Your task to perform on an android device: find photos in the google photos app Image 0: 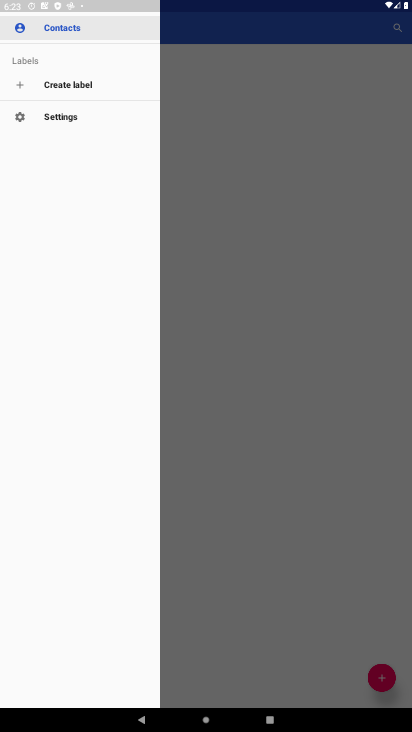
Step 0: press home button
Your task to perform on an android device: find photos in the google photos app Image 1: 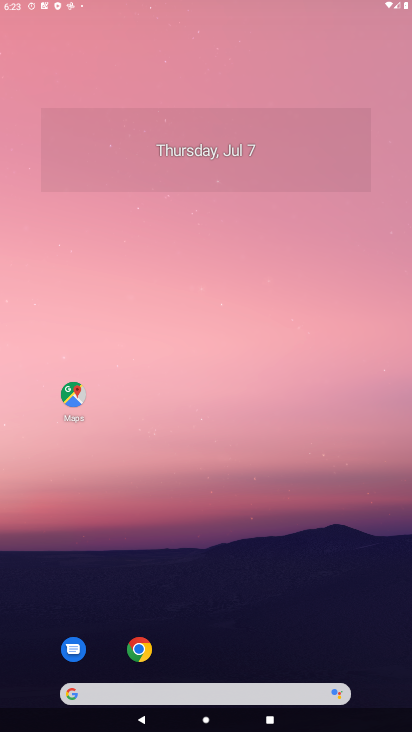
Step 1: drag from (390, 684) to (191, 9)
Your task to perform on an android device: find photos in the google photos app Image 2: 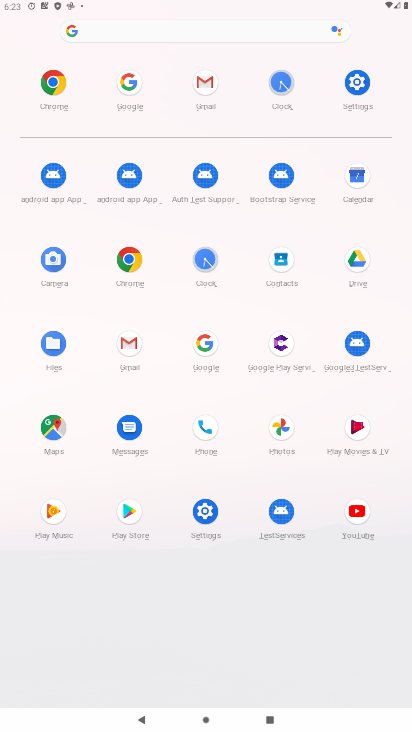
Step 2: click (301, 424)
Your task to perform on an android device: find photos in the google photos app Image 3: 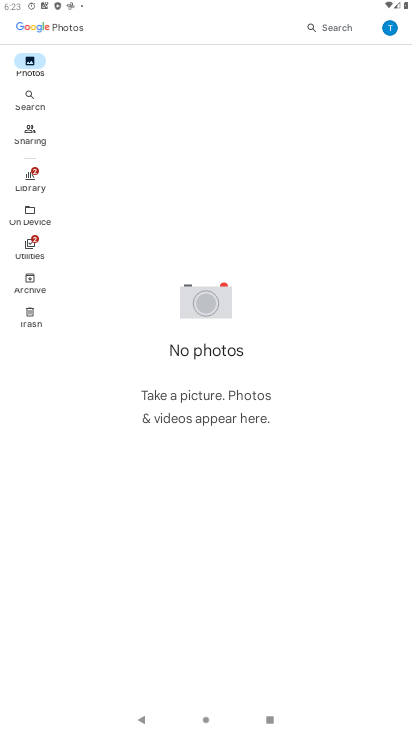
Step 3: task complete